Your task to perform on an android device: turn on location history Image 0: 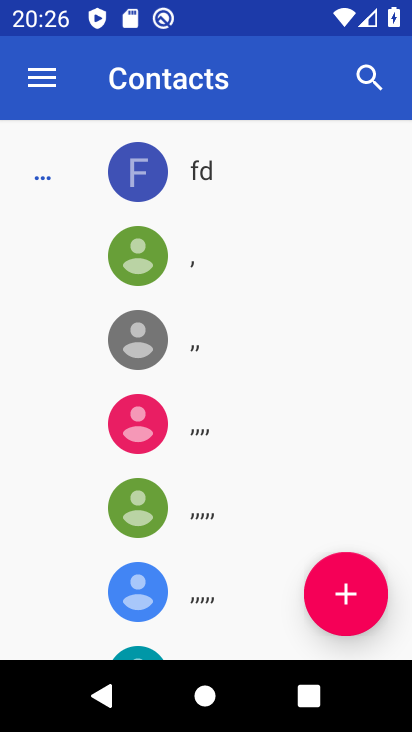
Step 0: press home button
Your task to perform on an android device: turn on location history Image 1: 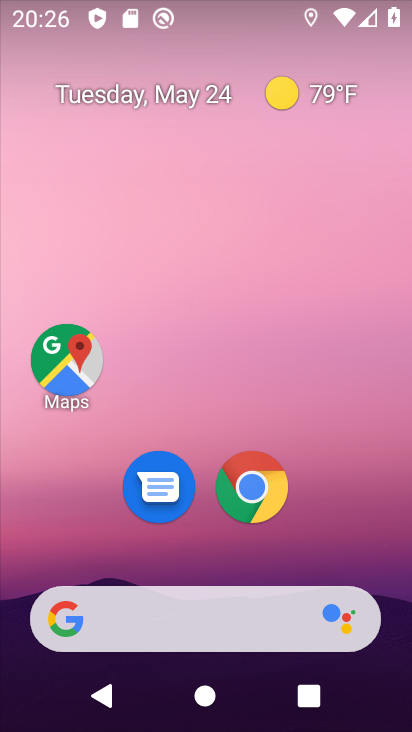
Step 1: drag from (311, 527) to (337, 127)
Your task to perform on an android device: turn on location history Image 2: 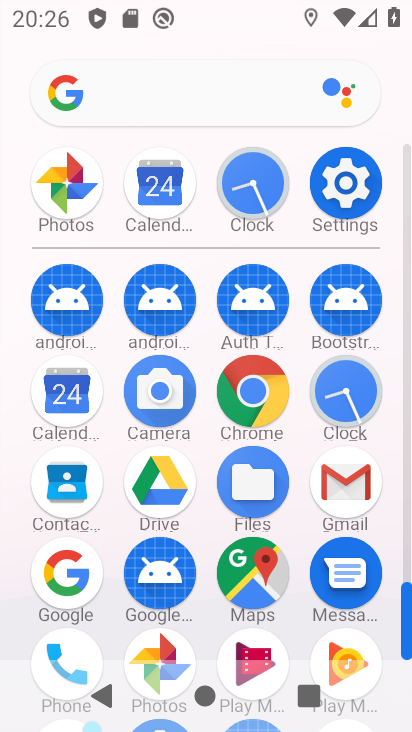
Step 2: drag from (200, 276) to (211, 20)
Your task to perform on an android device: turn on location history Image 3: 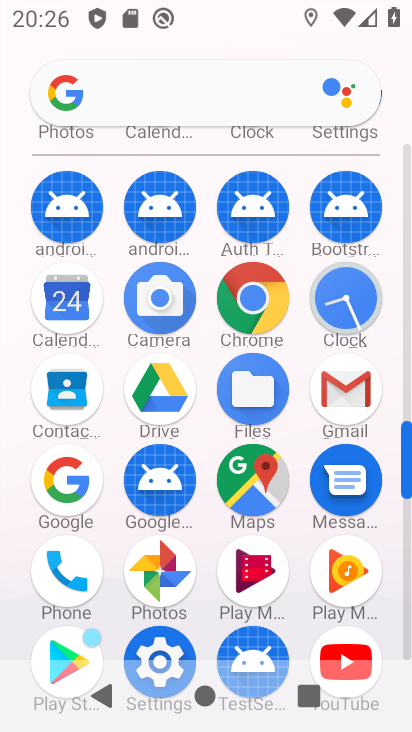
Step 3: click (245, 476)
Your task to perform on an android device: turn on location history Image 4: 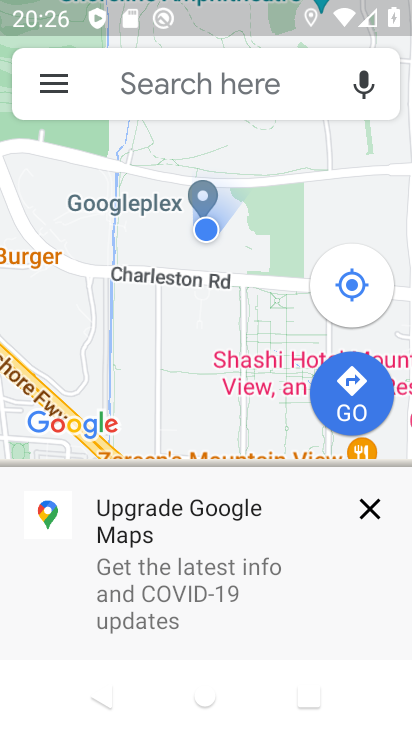
Step 4: click (365, 511)
Your task to perform on an android device: turn on location history Image 5: 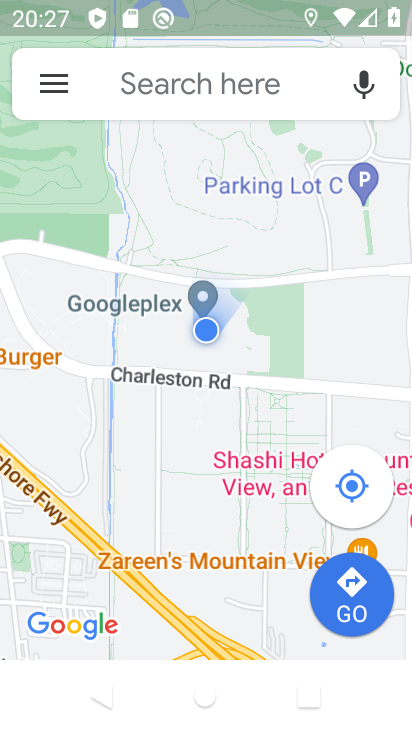
Step 5: click (49, 85)
Your task to perform on an android device: turn on location history Image 6: 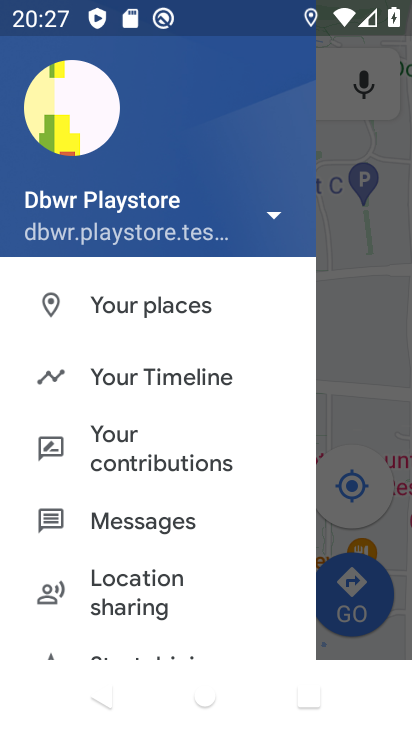
Step 6: click (181, 377)
Your task to perform on an android device: turn on location history Image 7: 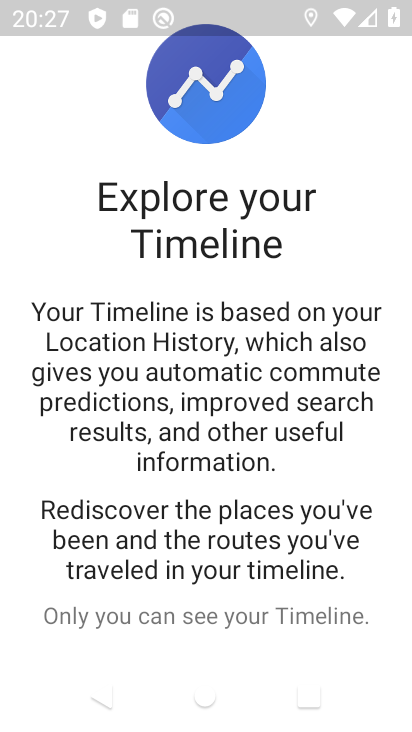
Step 7: drag from (170, 572) to (200, 149)
Your task to perform on an android device: turn on location history Image 8: 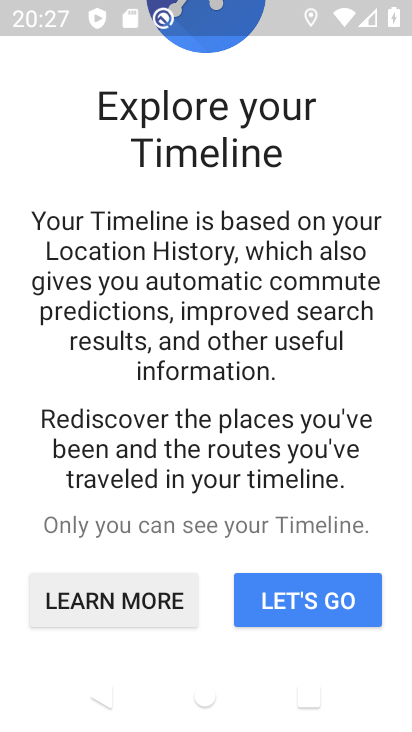
Step 8: click (327, 603)
Your task to perform on an android device: turn on location history Image 9: 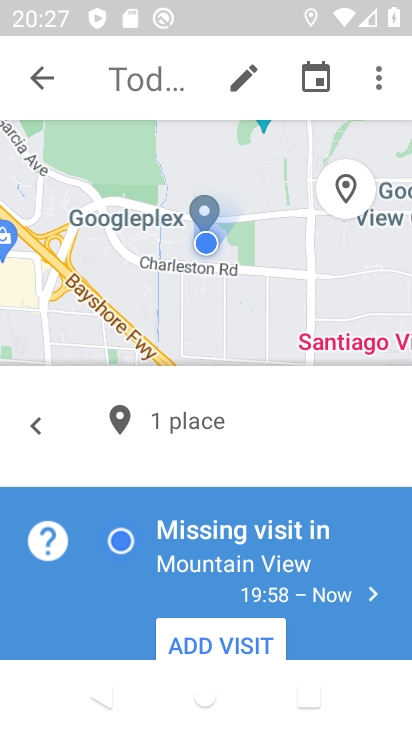
Step 9: click (383, 80)
Your task to perform on an android device: turn on location history Image 10: 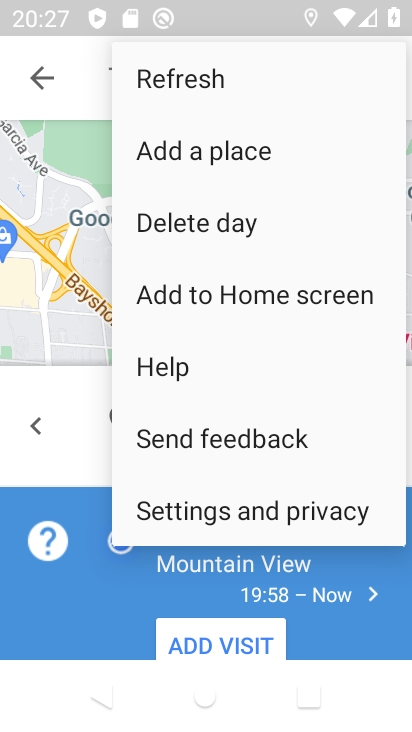
Step 10: click (234, 510)
Your task to perform on an android device: turn on location history Image 11: 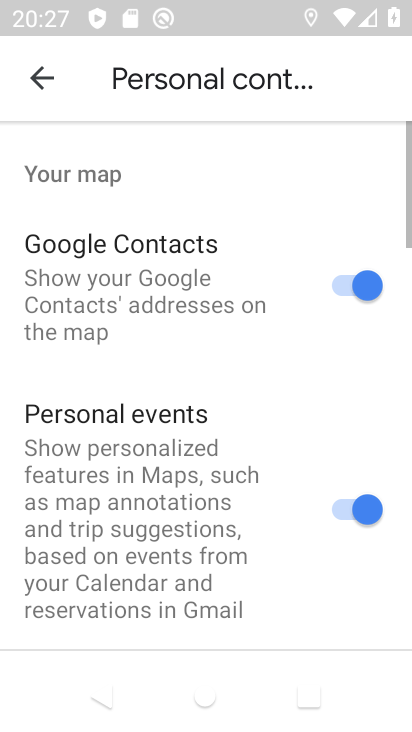
Step 11: drag from (237, 562) to (267, 247)
Your task to perform on an android device: turn on location history Image 12: 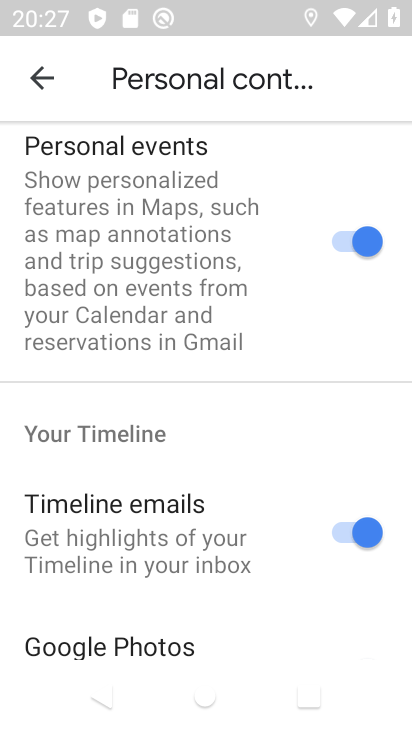
Step 12: drag from (261, 620) to (351, 314)
Your task to perform on an android device: turn on location history Image 13: 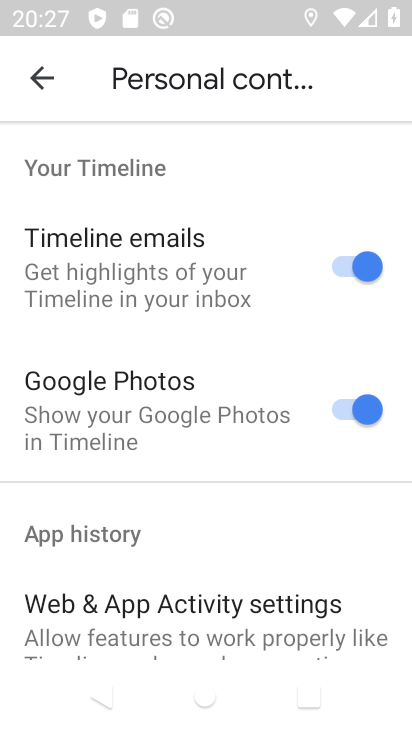
Step 13: drag from (232, 560) to (261, 223)
Your task to perform on an android device: turn on location history Image 14: 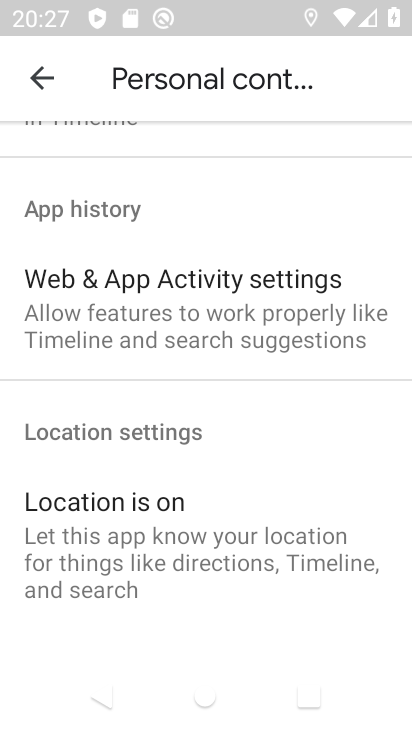
Step 14: drag from (210, 496) to (257, 227)
Your task to perform on an android device: turn on location history Image 15: 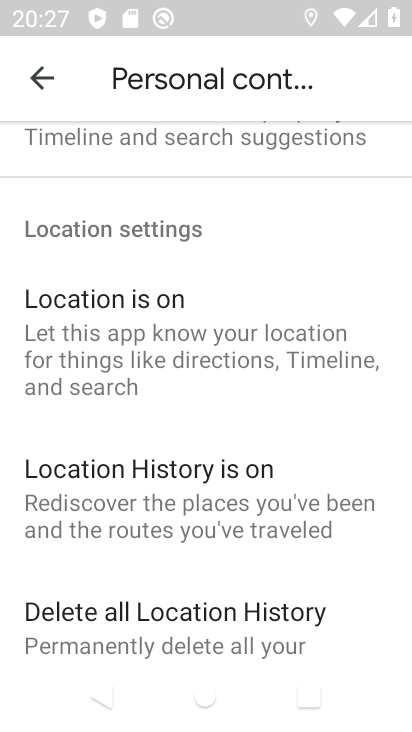
Step 15: click (187, 495)
Your task to perform on an android device: turn on location history Image 16: 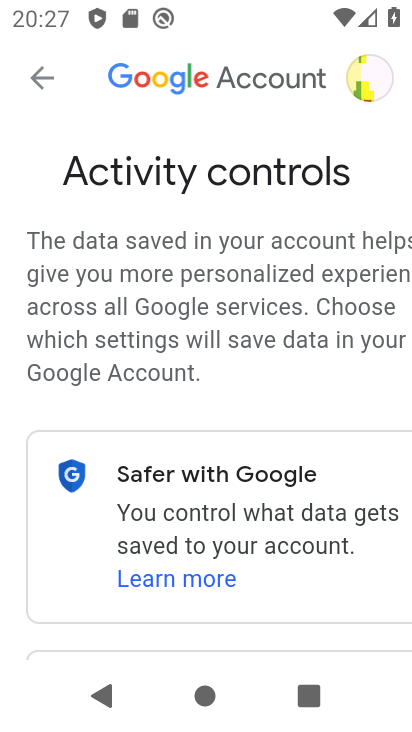
Step 16: task complete